Your task to perform on an android device: toggle translation in the chrome app Image 0: 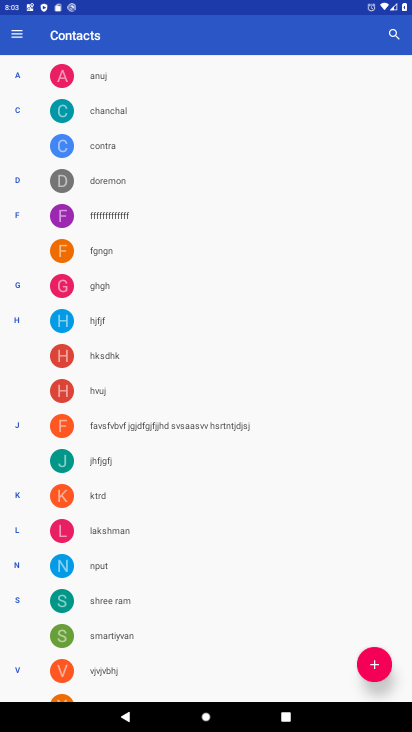
Step 0: press home button
Your task to perform on an android device: toggle translation in the chrome app Image 1: 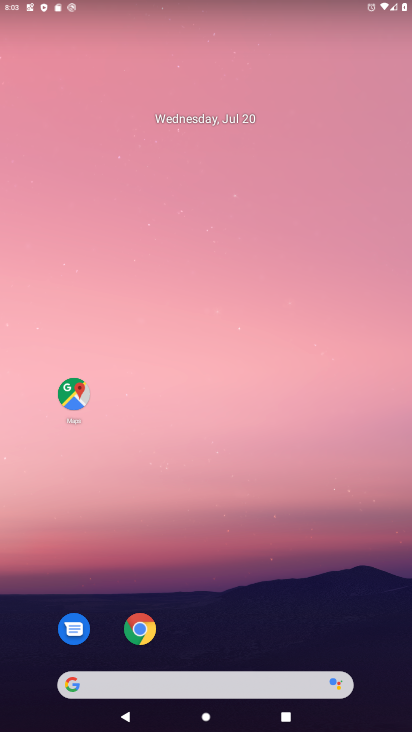
Step 1: drag from (190, 634) to (136, 628)
Your task to perform on an android device: toggle translation in the chrome app Image 2: 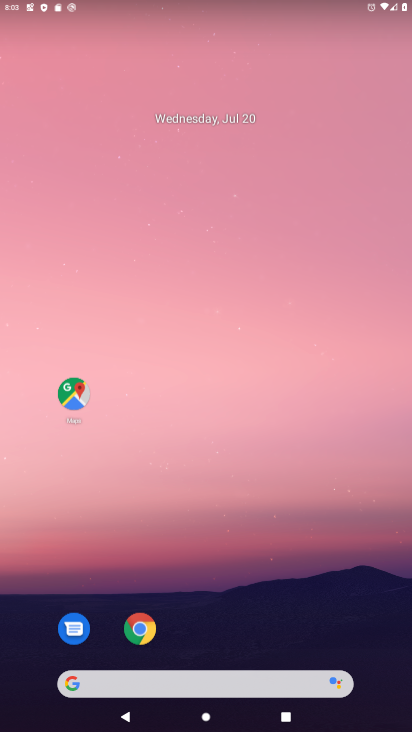
Step 2: click (136, 628)
Your task to perform on an android device: toggle translation in the chrome app Image 3: 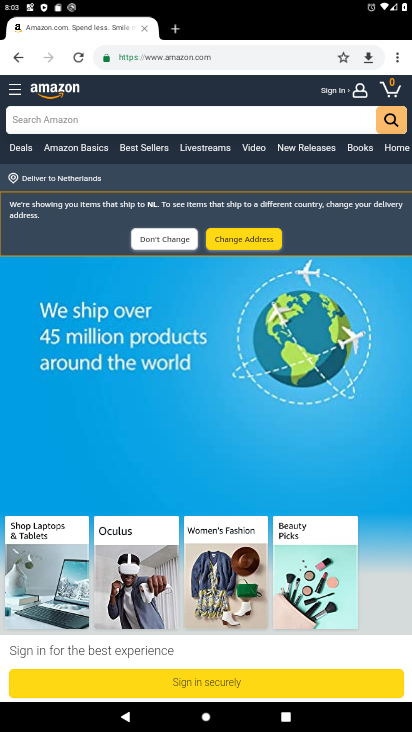
Step 3: click (399, 55)
Your task to perform on an android device: toggle translation in the chrome app Image 4: 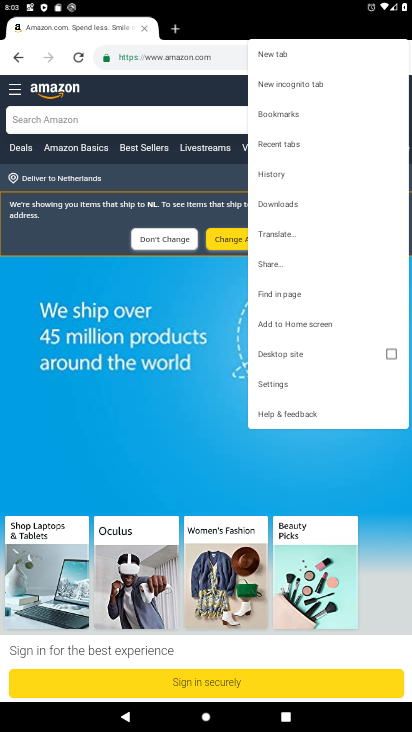
Step 4: click (292, 387)
Your task to perform on an android device: toggle translation in the chrome app Image 5: 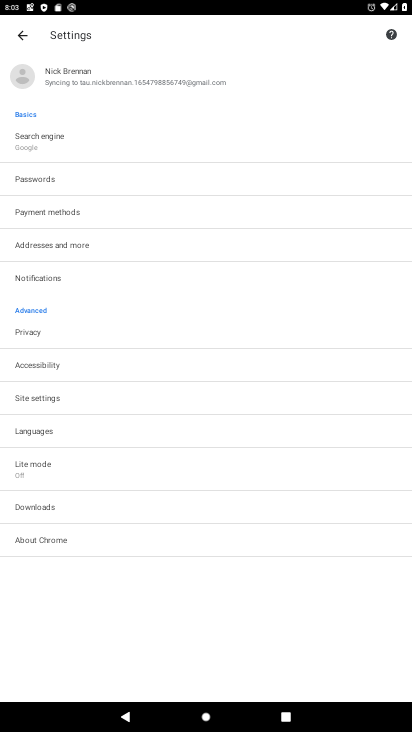
Step 5: click (41, 431)
Your task to perform on an android device: toggle translation in the chrome app Image 6: 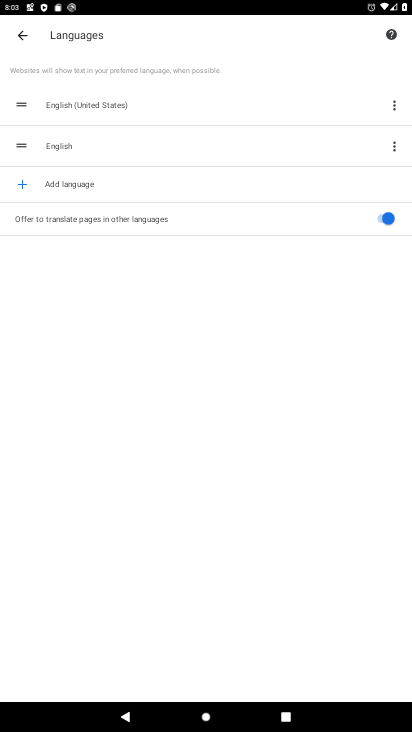
Step 6: click (376, 219)
Your task to perform on an android device: toggle translation in the chrome app Image 7: 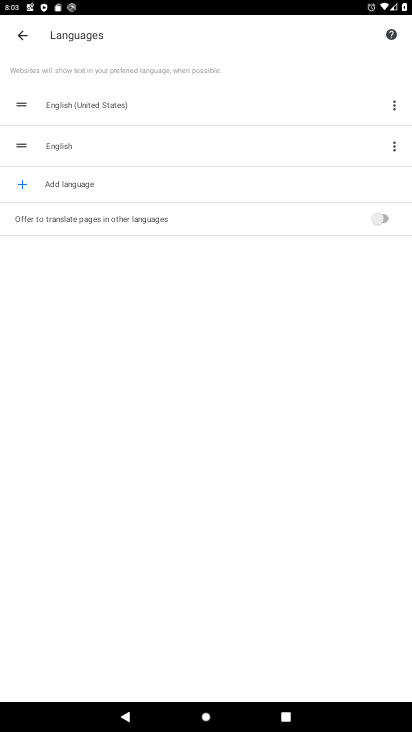
Step 7: task complete